Your task to perform on an android device: Open calendar and show me the third week of next month Image 0: 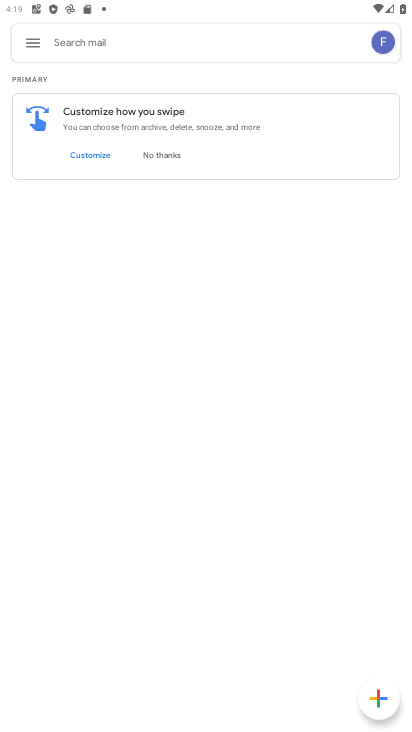
Step 0: press home button
Your task to perform on an android device: Open calendar and show me the third week of next month Image 1: 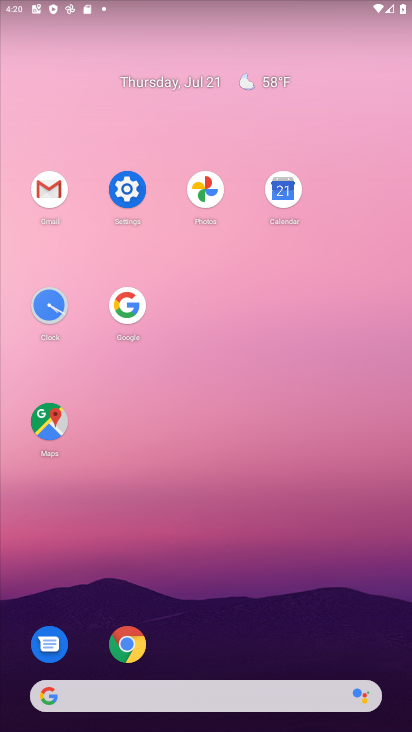
Step 1: click (276, 202)
Your task to perform on an android device: Open calendar and show me the third week of next month Image 2: 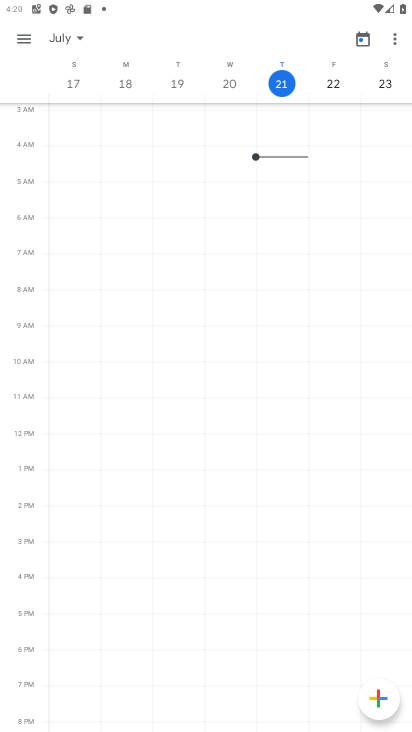
Step 2: task complete